Your task to perform on an android device: turn off improve location accuracy Image 0: 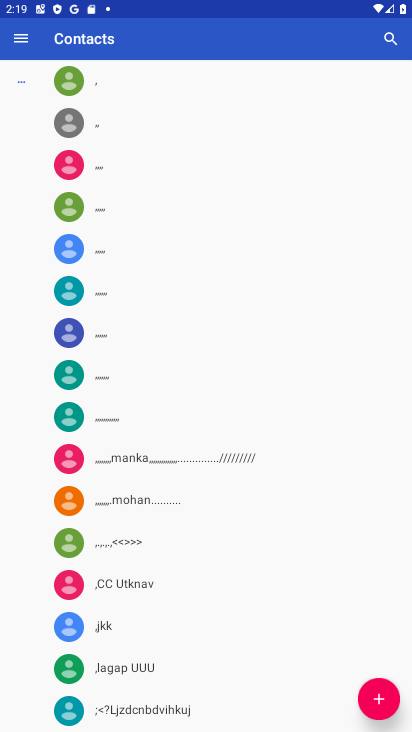
Step 0: press back button
Your task to perform on an android device: turn off improve location accuracy Image 1: 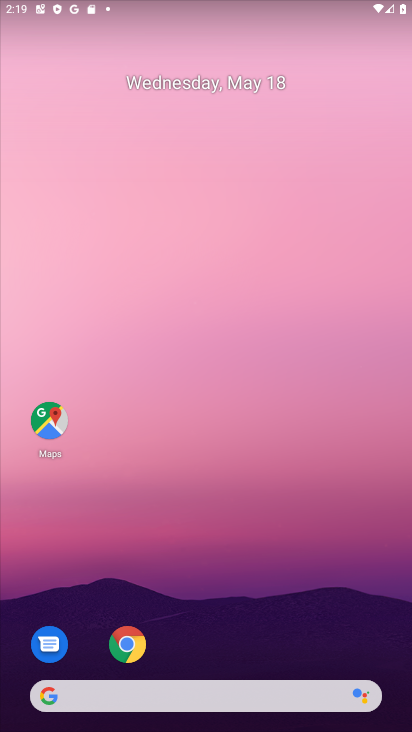
Step 1: drag from (253, 608) to (136, 122)
Your task to perform on an android device: turn off improve location accuracy Image 2: 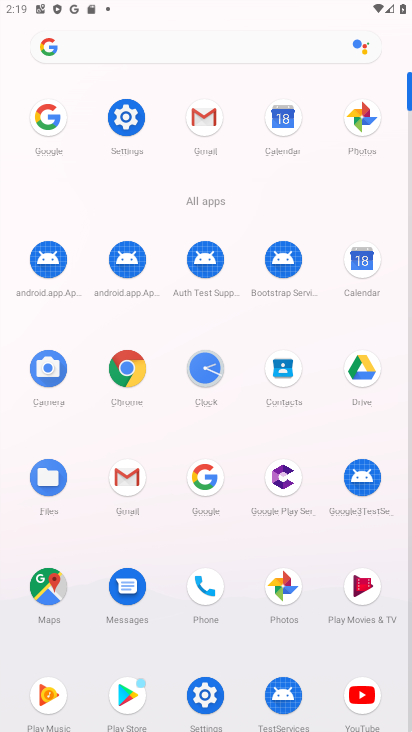
Step 2: click (124, 115)
Your task to perform on an android device: turn off improve location accuracy Image 3: 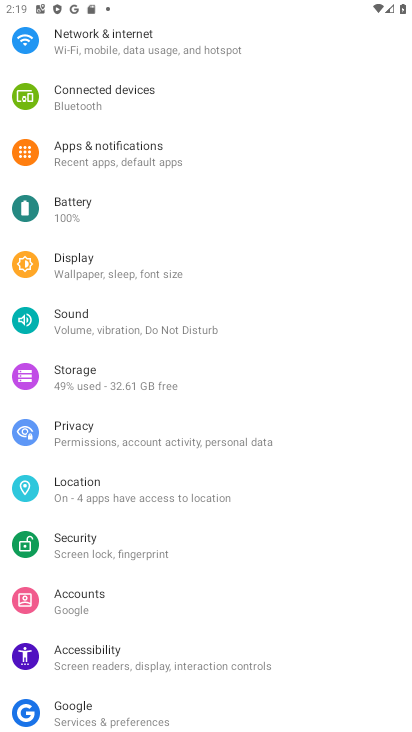
Step 3: click (89, 495)
Your task to perform on an android device: turn off improve location accuracy Image 4: 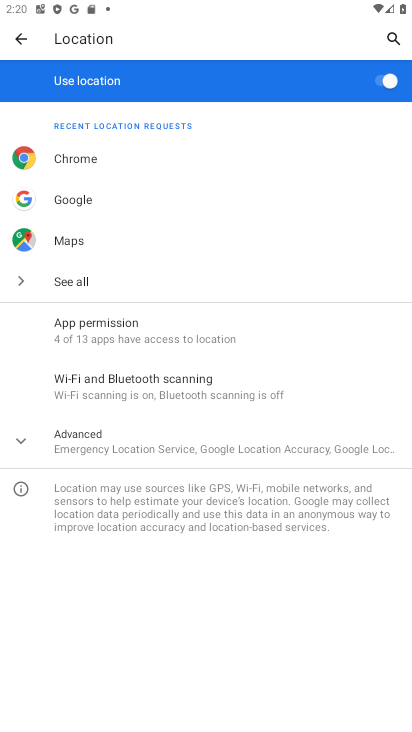
Step 4: click (111, 441)
Your task to perform on an android device: turn off improve location accuracy Image 5: 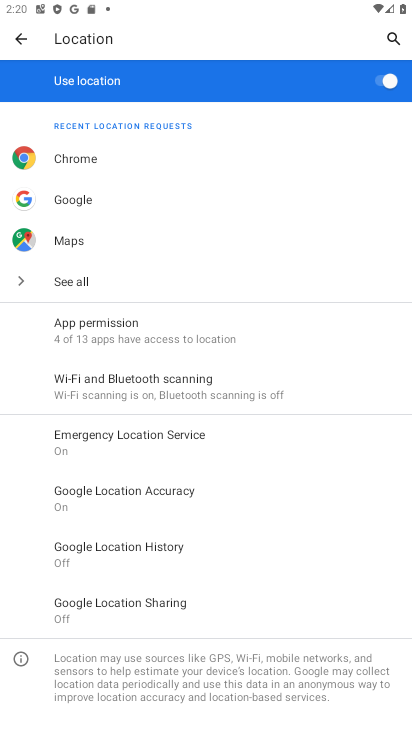
Step 5: click (89, 484)
Your task to perform on an android device: turn off improve location accuracy Image 6: 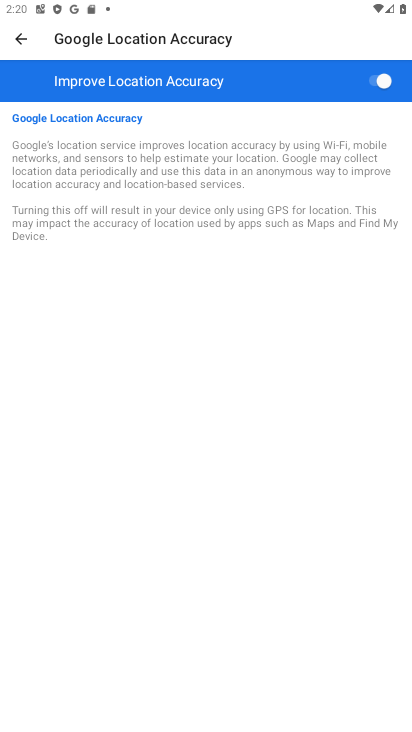
Step 6: click (378, 82)
Your task to perform on an android device: turn off improve location accuracy Image 7: 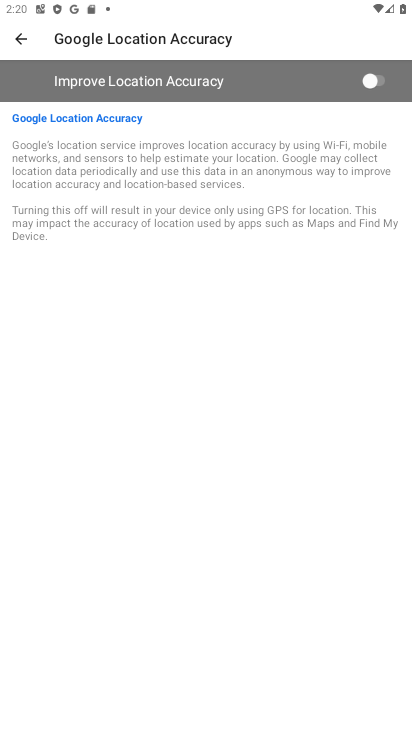
Step 7: task complete